Your task to perform on an android device: delete the emails in spam in the gmail app Image 0: 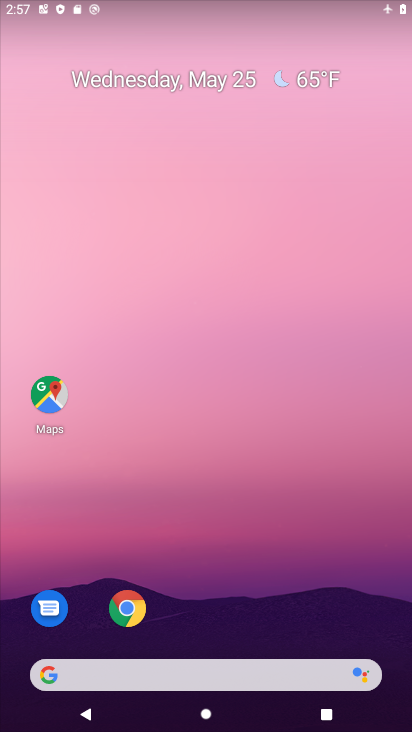
Step 0: drag from (360, 656) to (336, 2)
Your task to perform on an android device: delete the emails in spam in the gmail app Image 1: 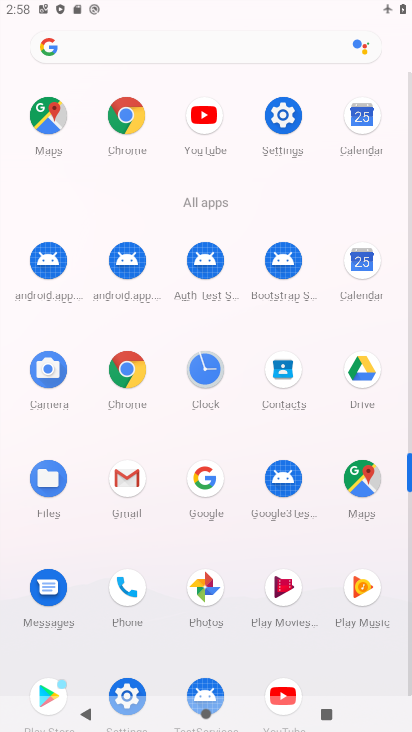
Step 1: click (126, 479)
Your task to perform on an android device: delete the emails in spam in the gmail app Image 2: 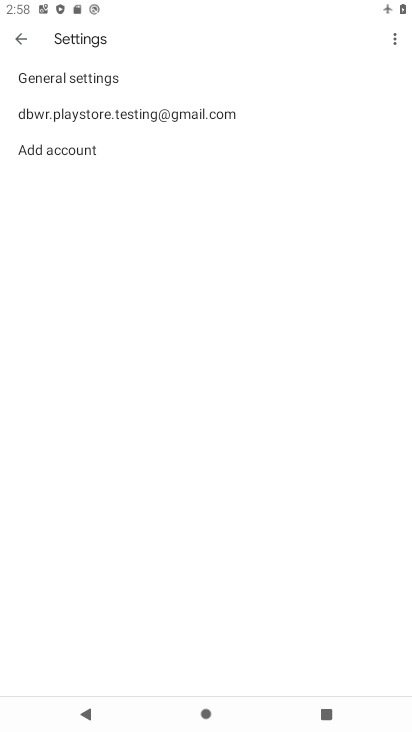
Step 2: click (18, 42)
Your task to perform on an android device: delete the emails in spam in the gmail app Image 3: 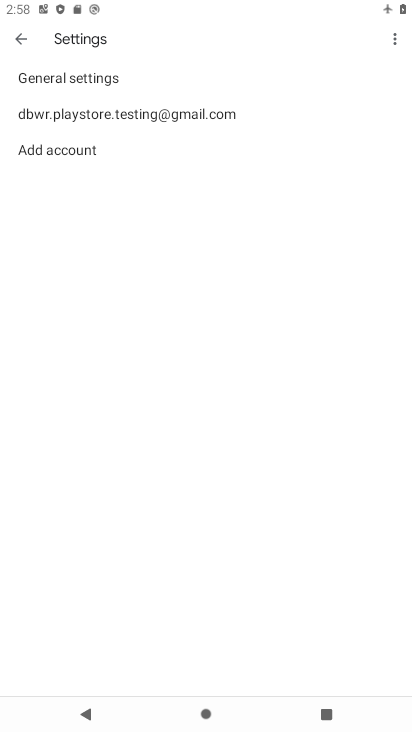
Step 3: click (18, 42)
Your task to perform on an android device: delete the emails in spam in the gmail app Image 4: 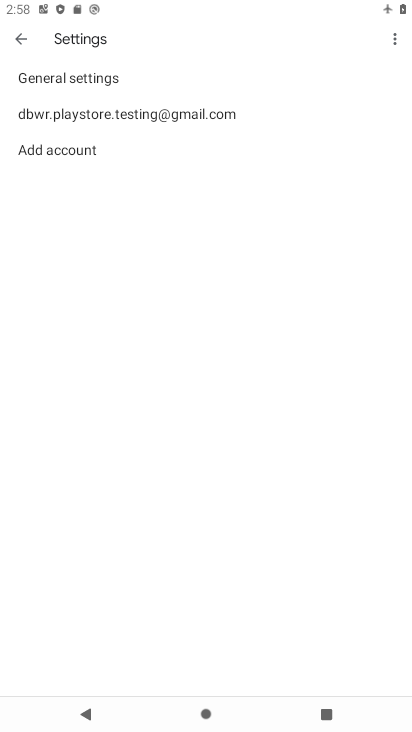
Step 4: click (18, 42)
Your task to perform on an android device: delete the emails in spam in the gmail app Image 5: 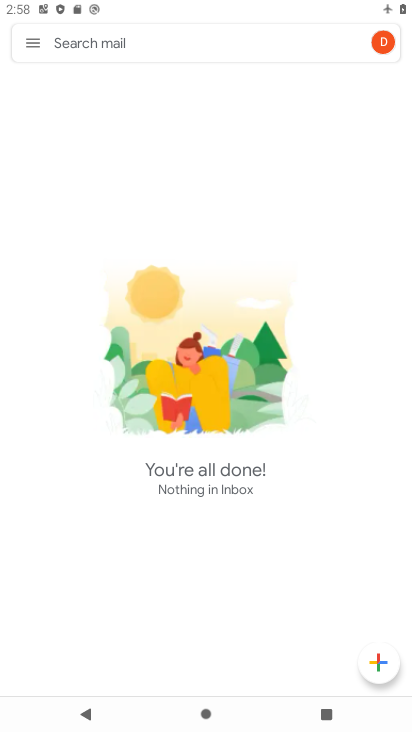
Step 5: click (36, 44)
Your task to perform on an android device: delete the emails in spam in the gmail app Image 6: 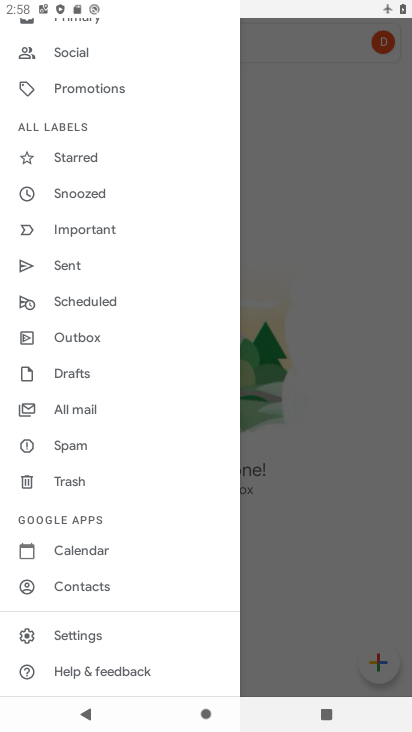
Step 6: click (77, 449)
Your task to perform on an android device: delete the emails in spam in the gmail app Image 7: 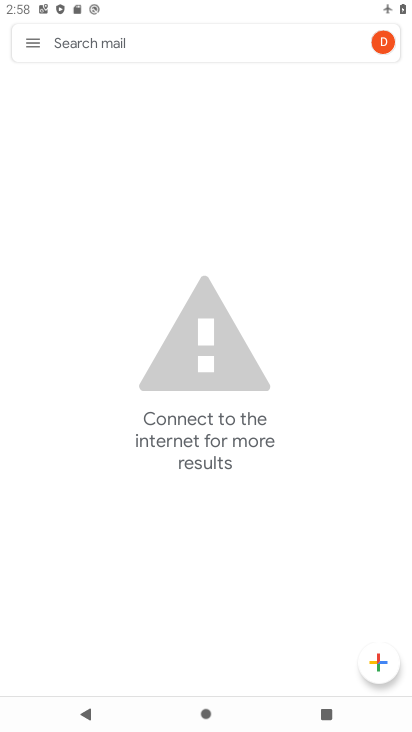
Step 7: task complete